Your task to perform on an android device: Open Yahoo.com Image 0: 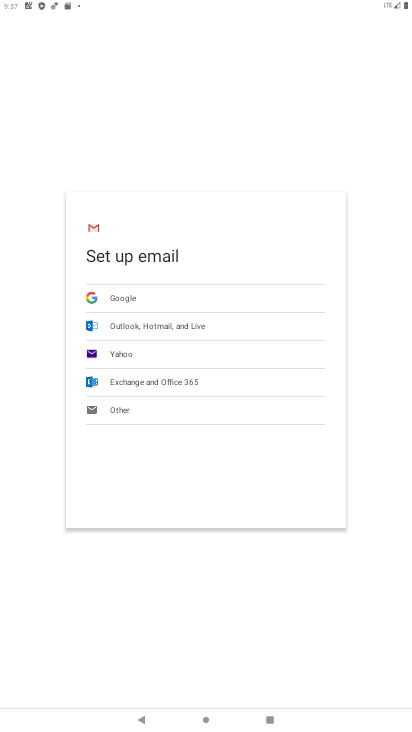
Step 0: press home button
Your task to perform on an android device: Open Yahoo.com Image 1: 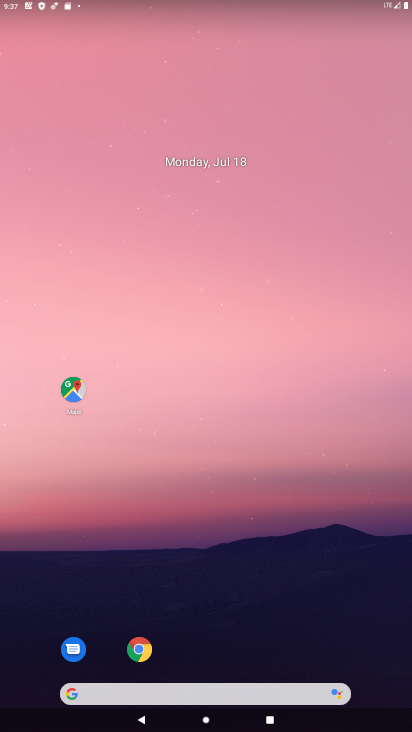
Step 1: click (195, 697)
Your task to perform on an android device: Open Yahoo.com Image 2: 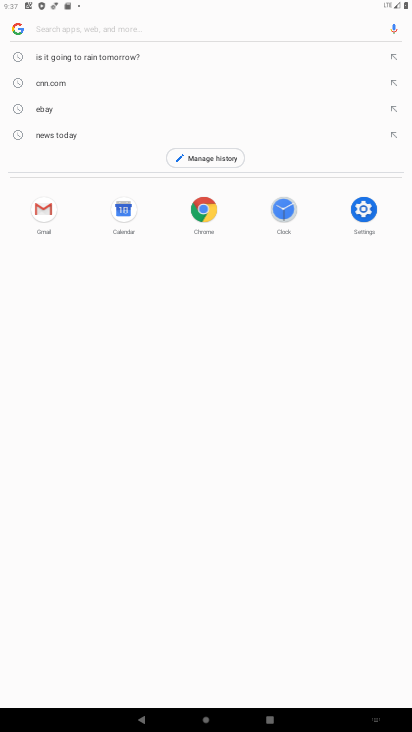
Step 2: type "yahoo.com"
Your task to perform on an android device: Open Yahoo.com Image 3: 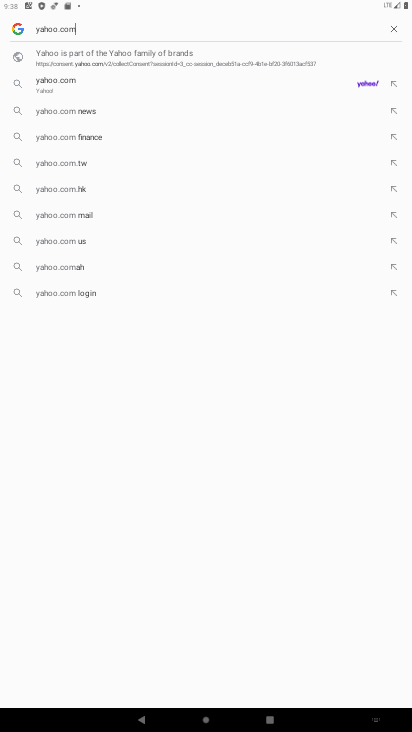
Step 3: click (153, 49)
Your task to perform on an android device: Open Yahoo.com Image 4: 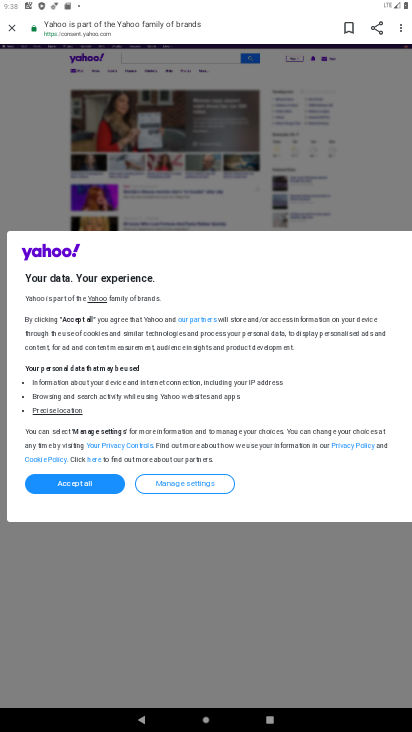
Step 4: task complete